Your task to perform on an android device: Open sound settings Image 0: 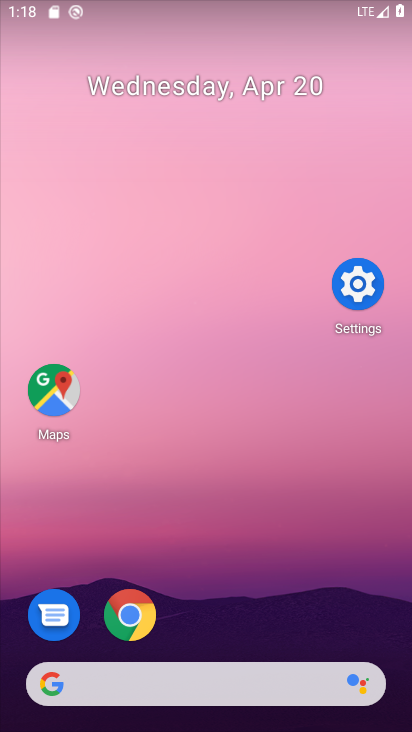
Step 0: drag from (171, 613) to (206, 182)
Your task to perform on an android device: Open sound settings Image 1: 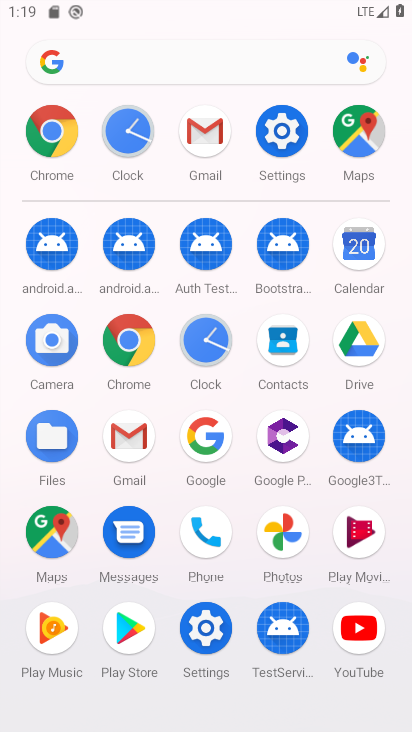
Step 1: click (277, 133)
Your task to perform on an android device: Open sound settings Image 2: 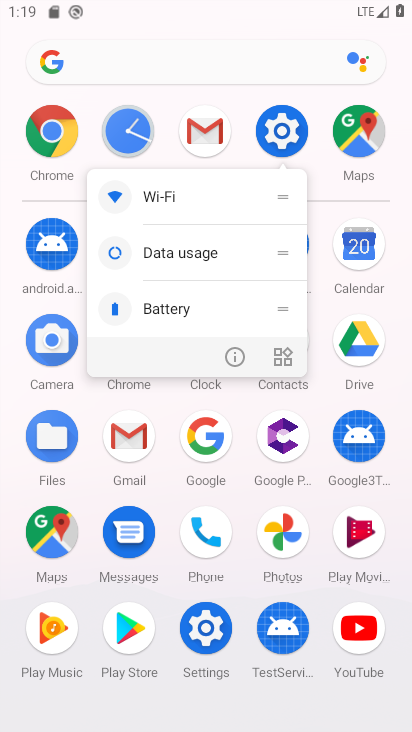
Step 2: click (238, 359)
Your task to perform on an android device: Open sound settings Image 3: 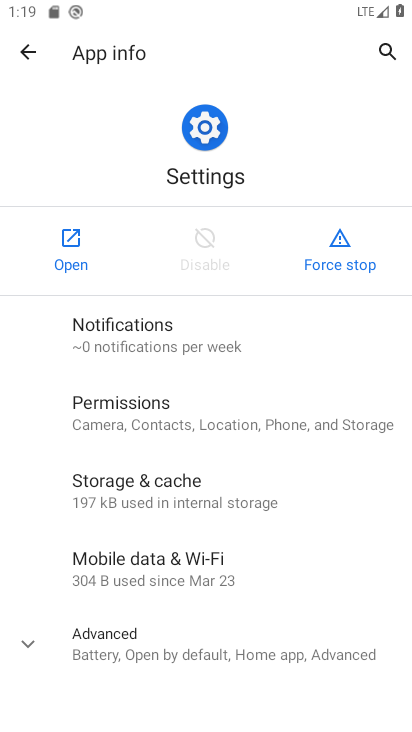
Step 3: click (82, 240)
Your task to perform on an android device: Open sound settings Image 4: 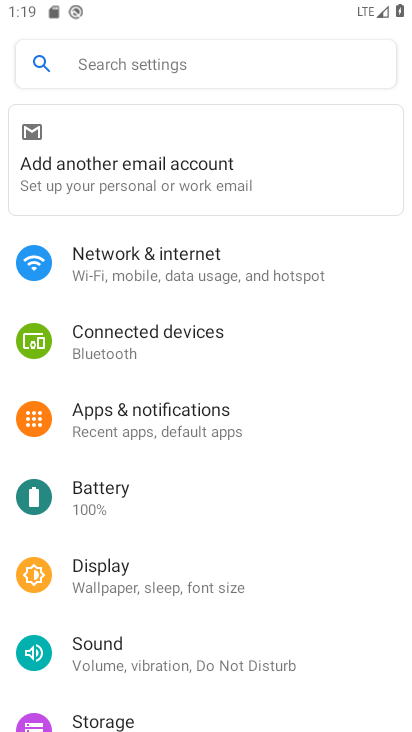
Step 4: click (86, 633)
Your task to perform on an android device: Open sound settings Image 5: 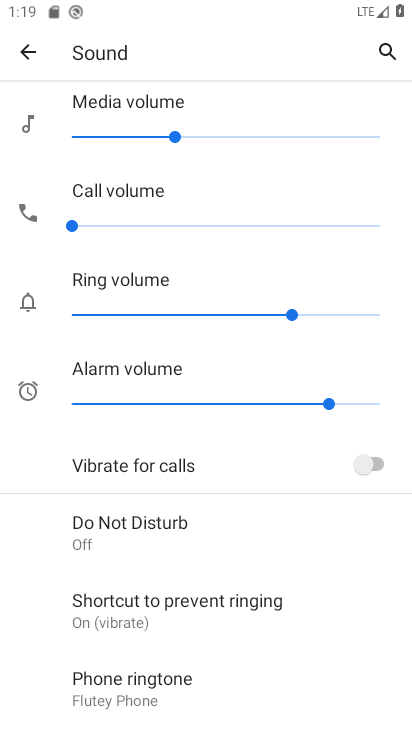
Step 5: task complete